Your task to perform on an android device: Open Google Maps and go to "Timeline" Image 0: 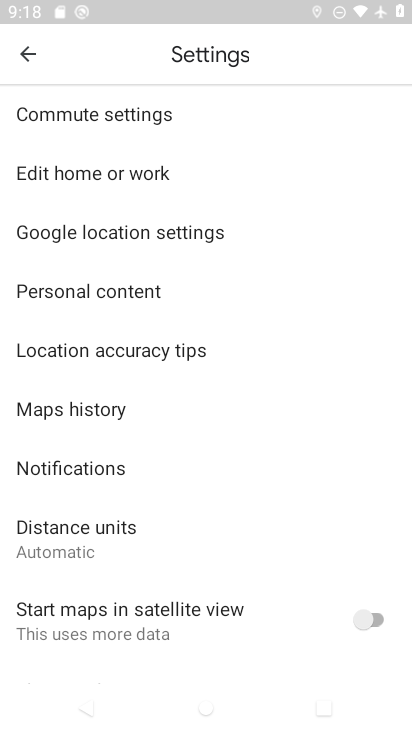
Step 0: press home button
Your task to perform on an android device: Open Google Maps and go to "Timeline" Image 1: 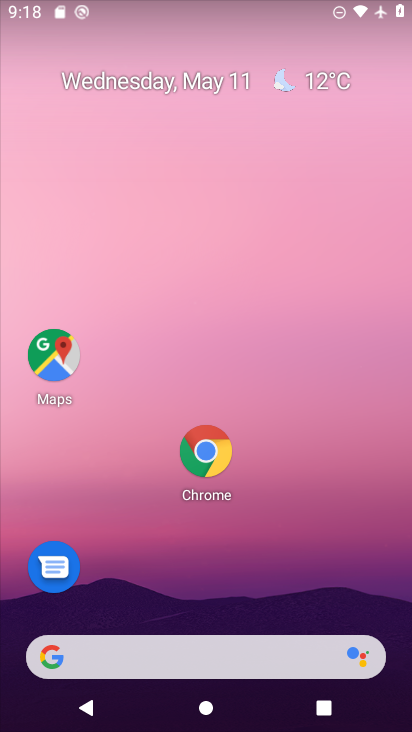
Step 1: click (55, 366)
Your task to perform on an android device: Open Google Maps and go to "Timeline" Image 2: 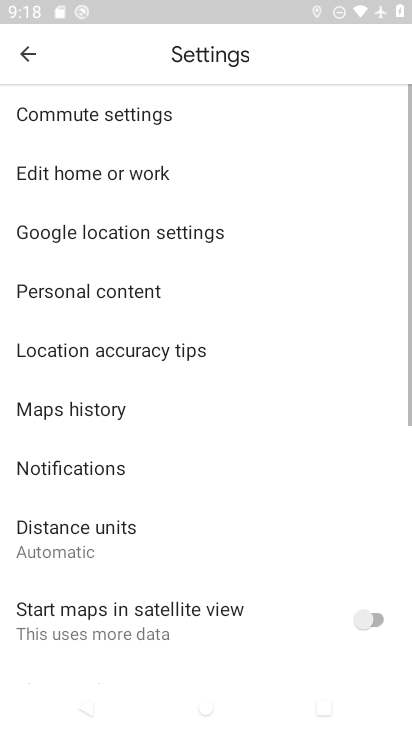
Step 2: click (25, 55)
Your task to perform on an android device: Open Google Maps and go to "Timeline" Image 3: 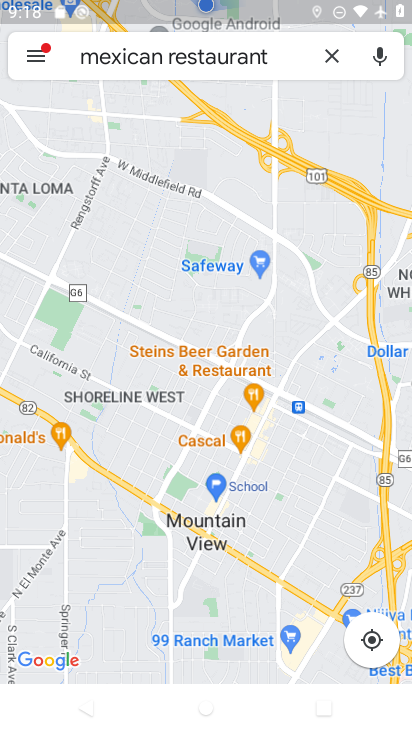
Step 3: click (32, 50)
Your task to perform on an android device: Open Google Maps and go to "Timeline" Image 4: 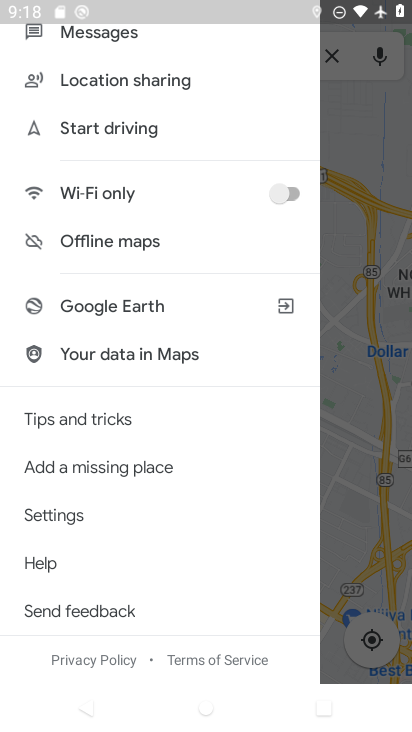
Step 4: drag from (194, 125) to (162, 612)
Your task to perform on an android device: Open Google Maps and go to "Timeline" Image 5: 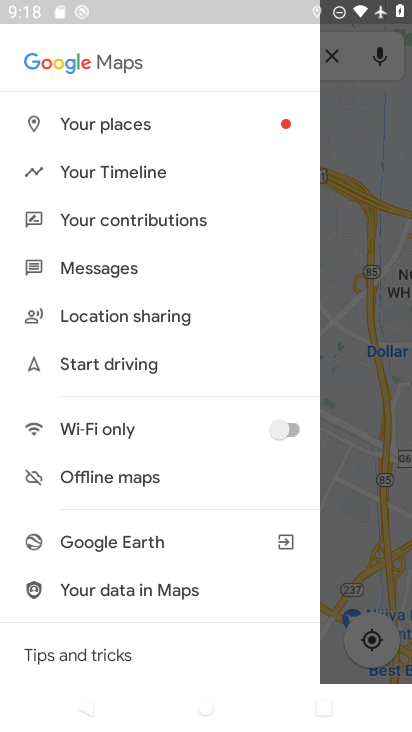
Step 5: click (140, 169)
Your task to perform on an android device: Open Google Maps and go to "Timeline" Image 6: 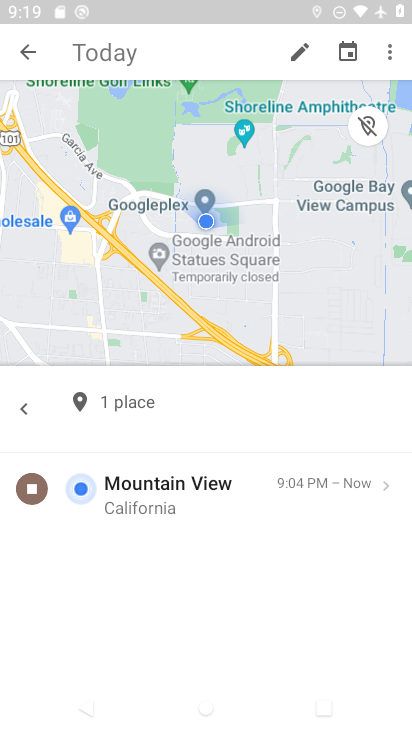
Step 6: task complete